Your task to perform on an android device: turn smart compose on in the gmail app Image 0: 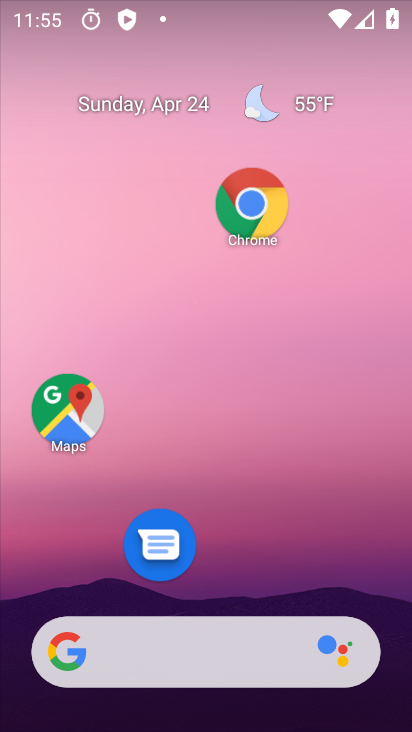
Step 0: drag from (312, 675) to (308, 162)
Your task to perform on an android device: turn smart compose on in the gmail app Image 1: 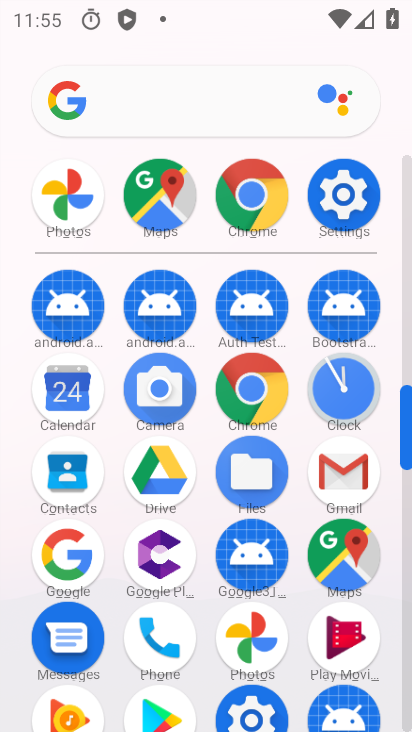
Step 1: click (345, 479)
Your task to perform on an android device: turn smart compose on in the gmail app Image 2: 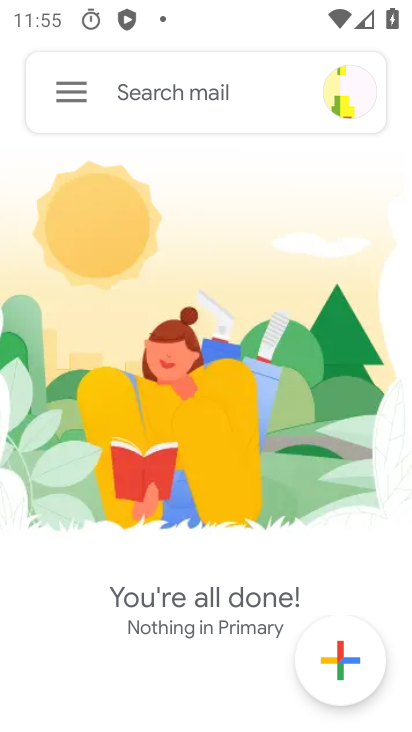
Step 2: click (66, 97)
Your task to perform on an android device: turn smart compose on in the gmail app Image 3: 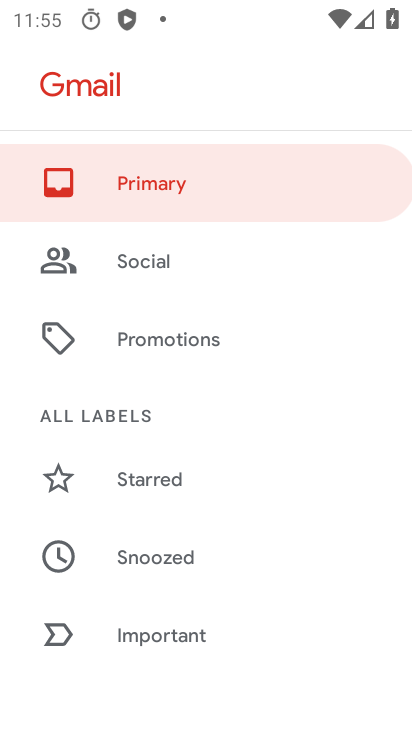
Step 3: drag from (150, 516) to (211, 311)
Your task to perform on an android device: turn smart compose on in the gmail app Image 4: 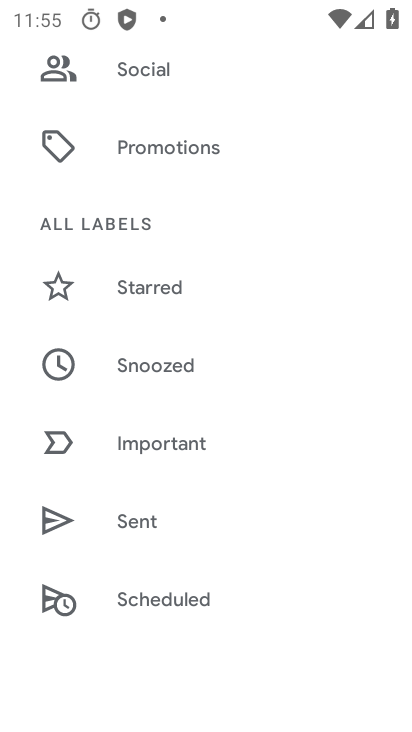
Step 4: drag from (155, 534) to (203, 391)
Your task to perform on an android device: turn smart compose on in the gmail app Image 5: 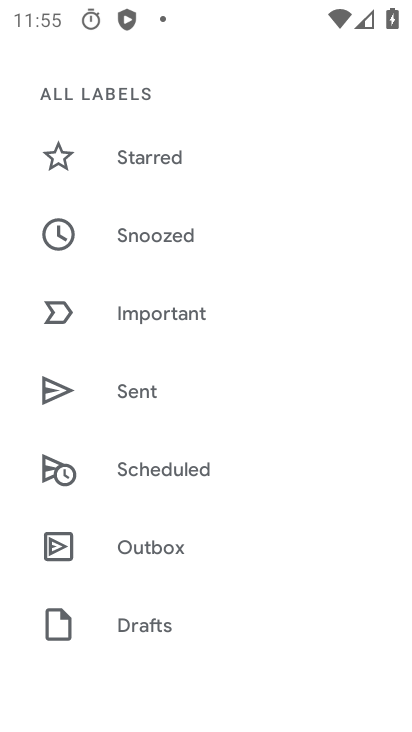
Step 5: drag from (164, 578) to (254, 420)
Your task to perform on an android device: turn smart compose on in the gmail app Image 6: 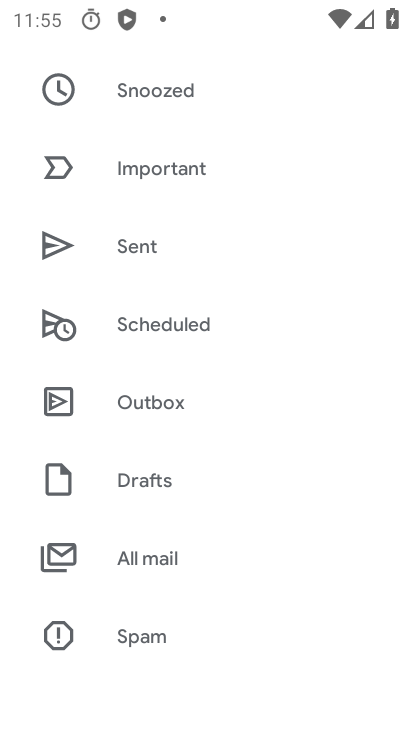
Step 6: drag from (185, 598) to (239, 395)
Your task to perform on an android device: turn smart compose on in the gmail app Image 7: 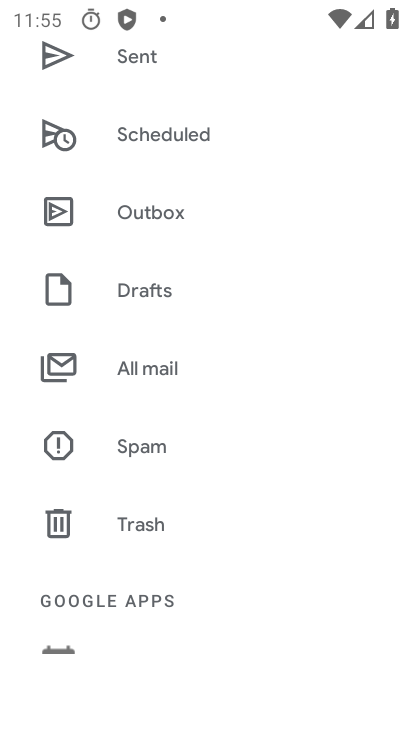
Step 7: drag from (175, 549) to (247, 396)
Your task to perform on an android device: turn smart compose on in the gmail app Image 8: 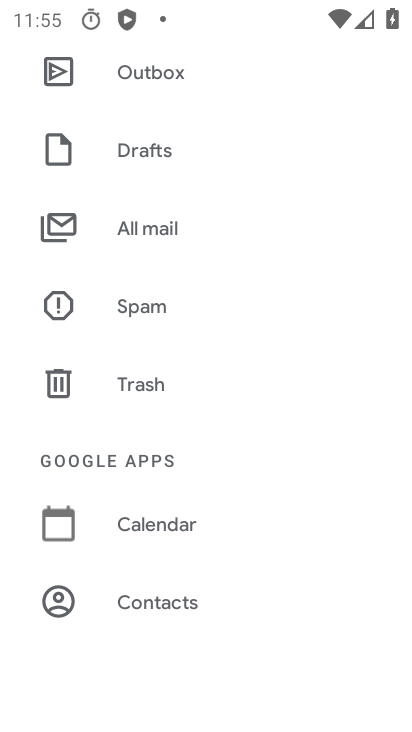
Step 8: drag from (185, 610) to (210, 475)
Your task to perform on an android device: turn smart compose on in the gmail app Image 9: 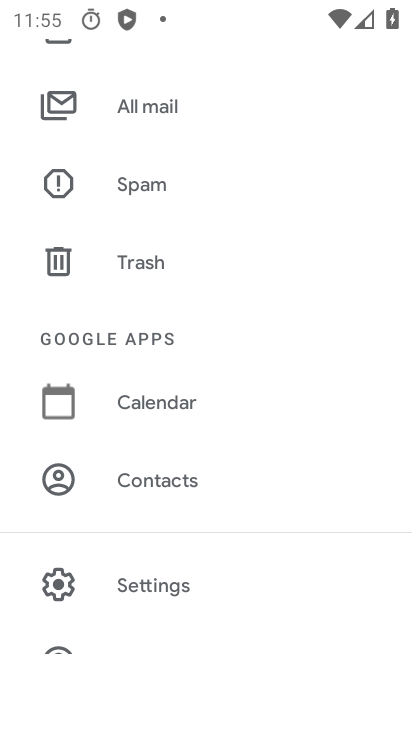
Step 9: click (157, 584)
Your task to perform on an android device: turn smart compose on in the gmail app Image 10: 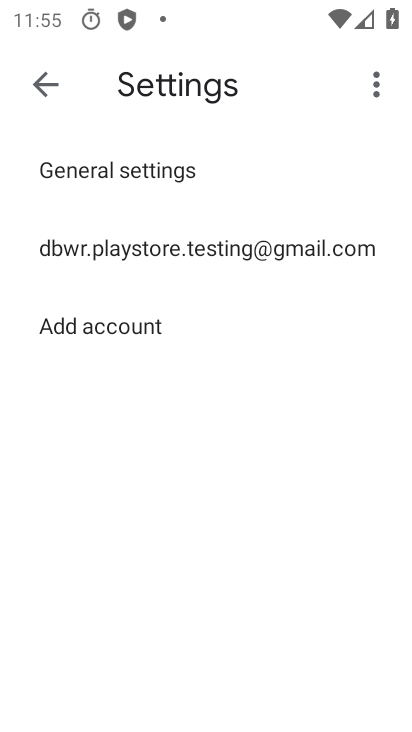
Step 10: click (219, 247)
Your task to perform on an android device: turn smart compose on in the gmail app Image 11: 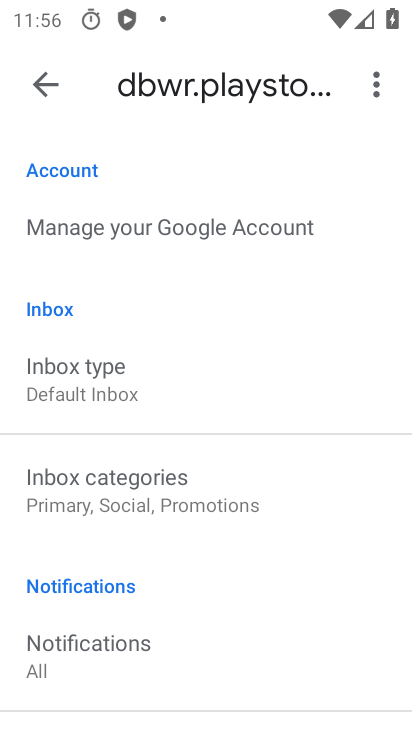
Step 11: drag from (204, 608) to (236, 389)
Your task to perform on an android device: turn smart compose on in the gmail app Image 12: 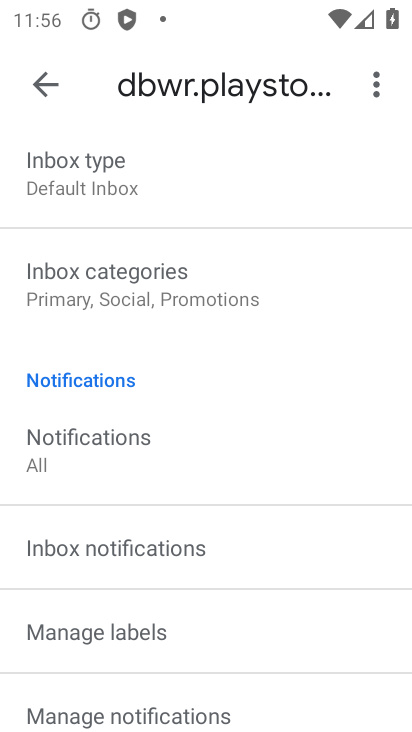
Step 12: drag from (186, 496) to (218, 326)
Your task to perform on an android device: turn smart compose on in the gmail app Image 13: 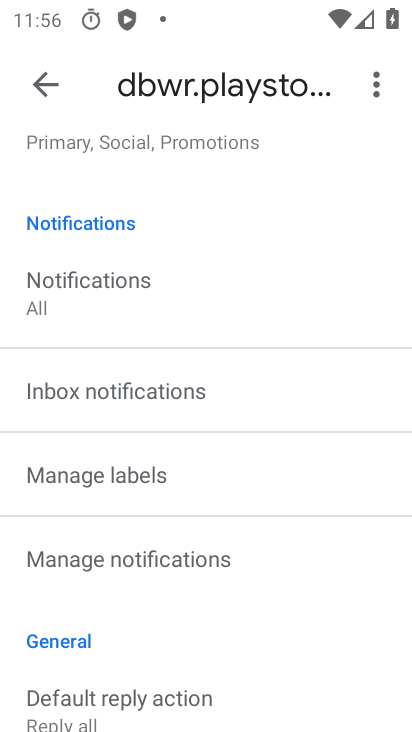
Step 13: drag from (190, 611) to (231, 346)
Your task to perform on an android device: turn smart compose on in the gmail app Image 14: 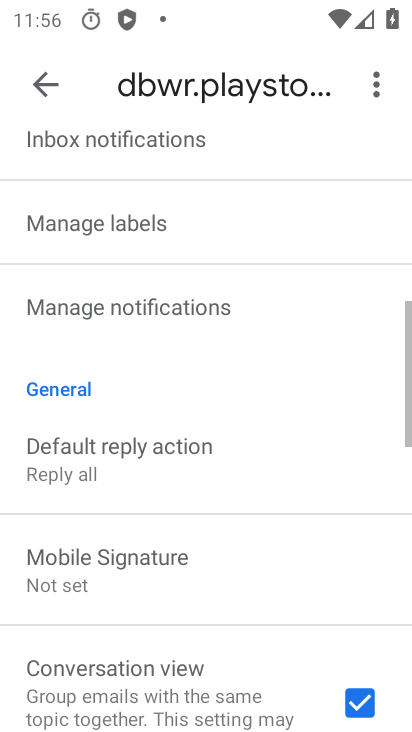
Step 14: drag from (200, 581) to (302, 279)
Your task to perform on an android device: turn smart compose on in the gmail app Image 15: 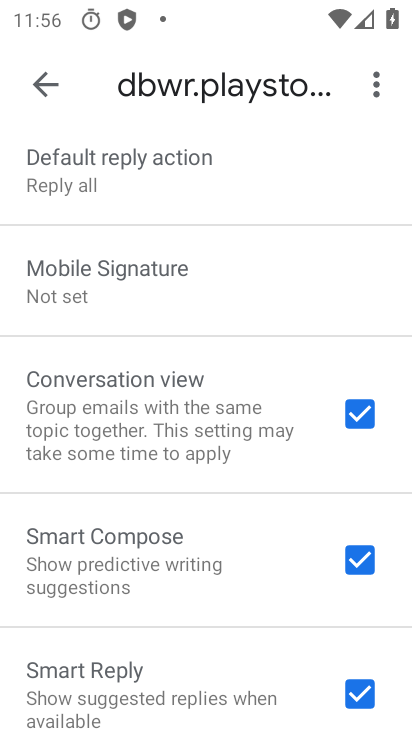
Step 15: click (353, 570)
Your task to perform on an android device: turn smart compose on in the gmail app Image 16: 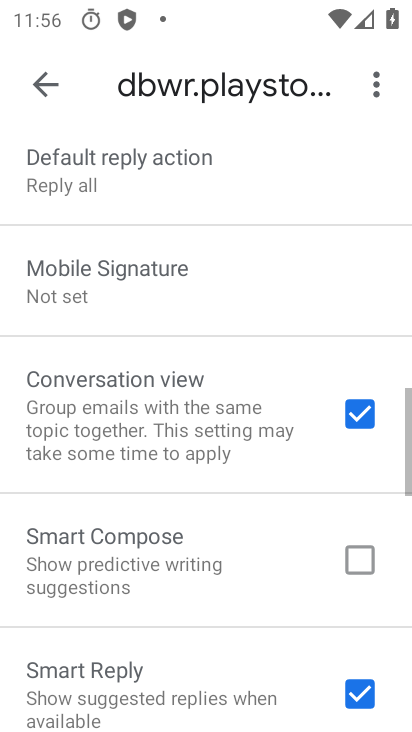
Step 16: click (353, 570)
Your task to perform on an android device: turn smart compose on in the gmail app Image 17: 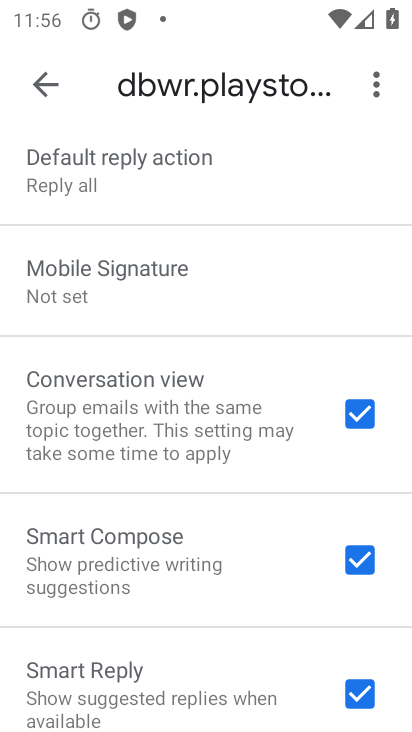
Step 17: task complete